Your task to perform on an android device: What's the weather today? Image 0: 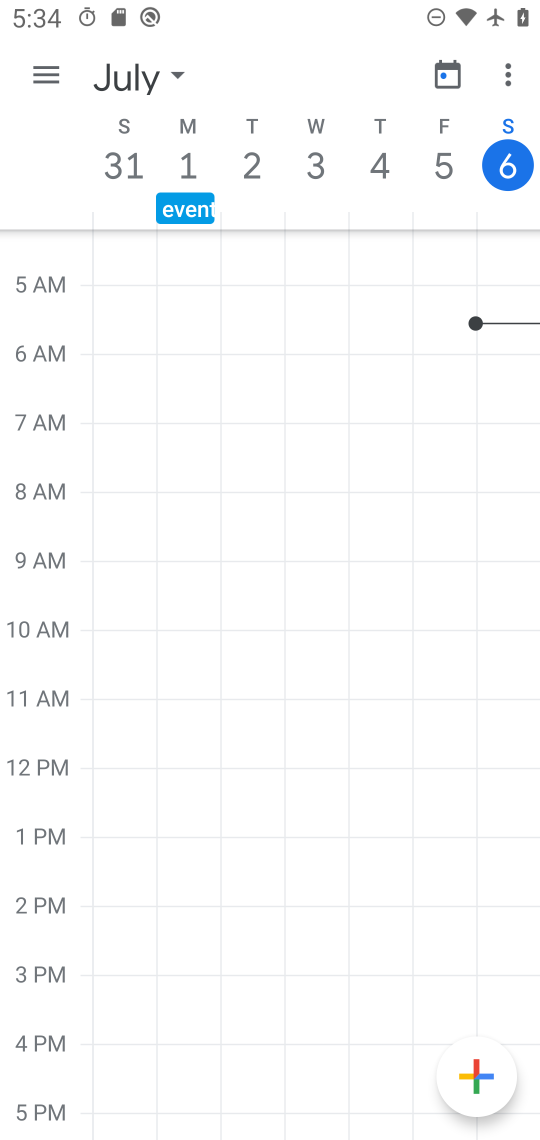
Step 0: press home button
Your task to perform on an android device: What's the weather today? Image 1: 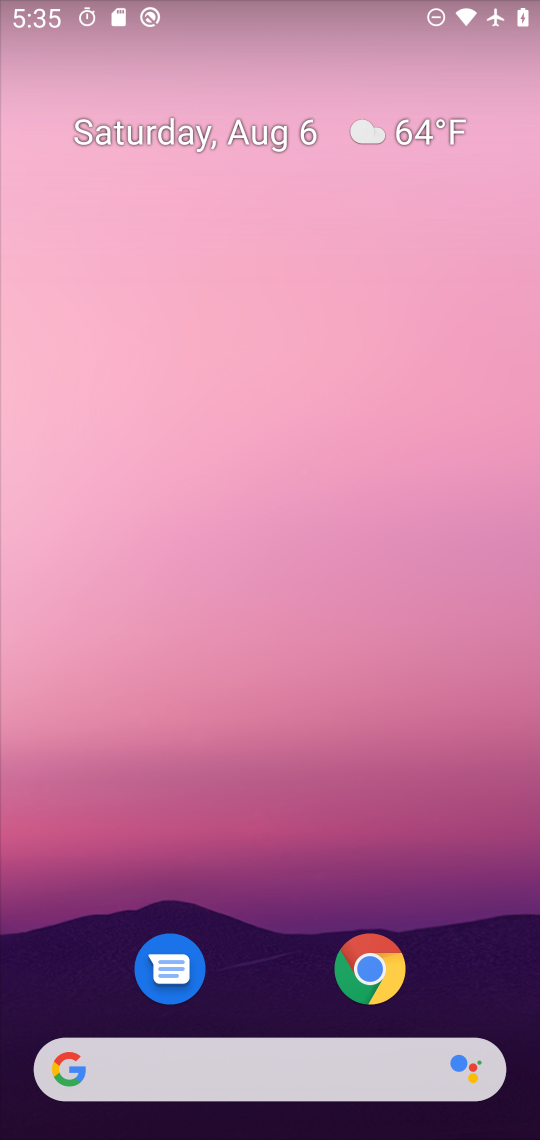
Step 1: click (61, 1064)
Your task to perform on an android device: What's the weather today? Image 2: 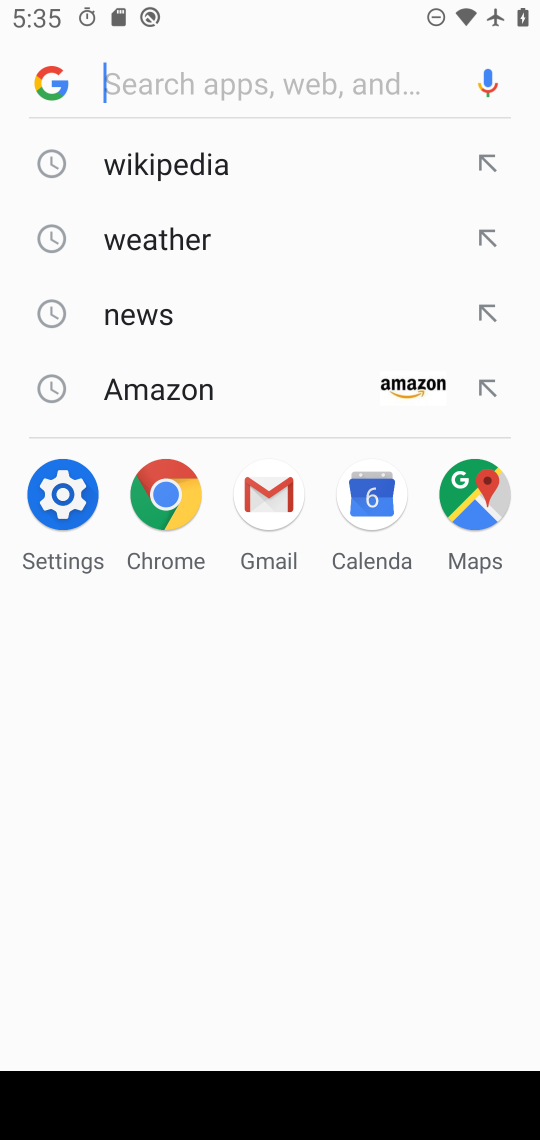
Step 2: type "weather today?"
Your task to perform on an android device: What's the weather today? Image 3: 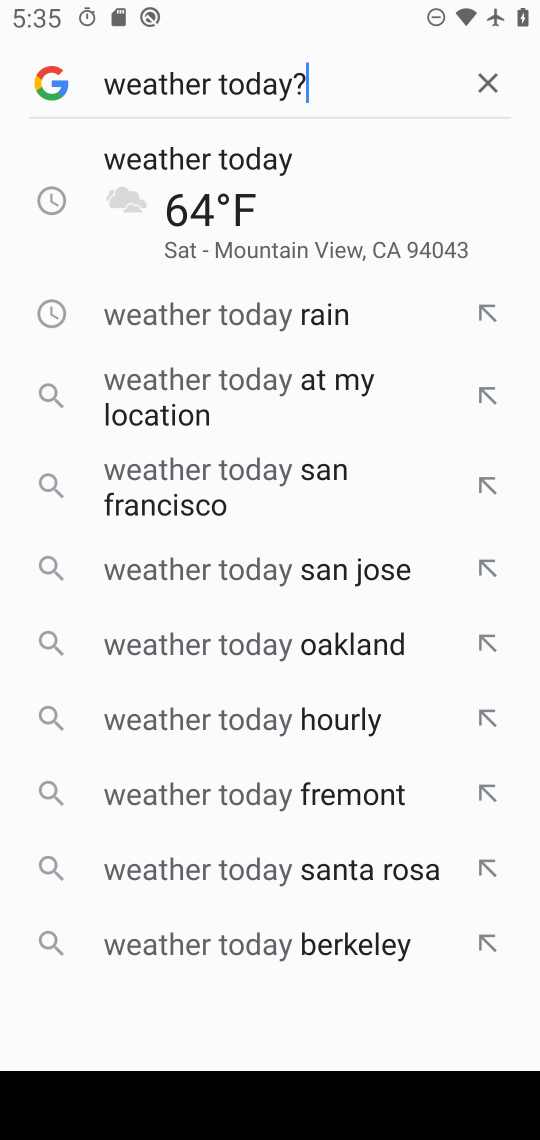
Step 3: press enter
Your task to perform on an android device: What's the weather today? Image 4: 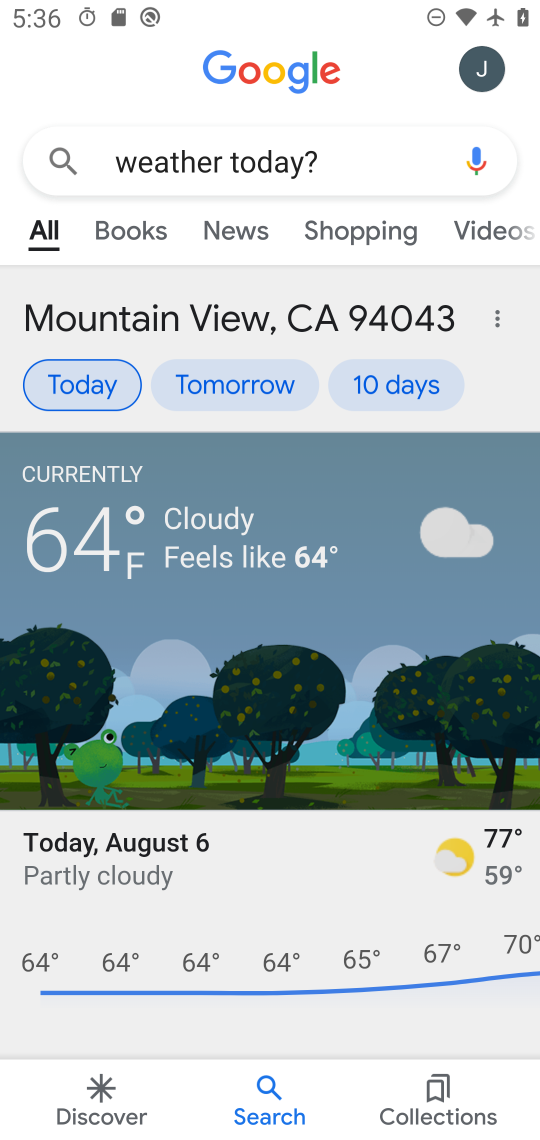
Step 4: task complete